Your task to perform on an android device: Do I have any events today? Image 0: 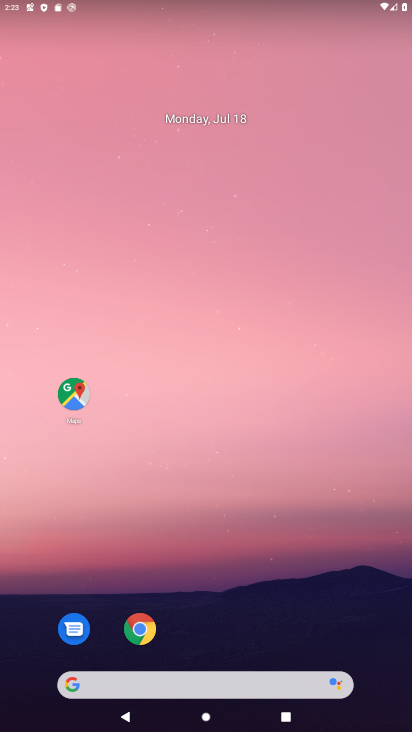
Step 0: drag from (223, 598) to (253, 306)
Your task to perform on an android device: Do I have any events today? Image 1: 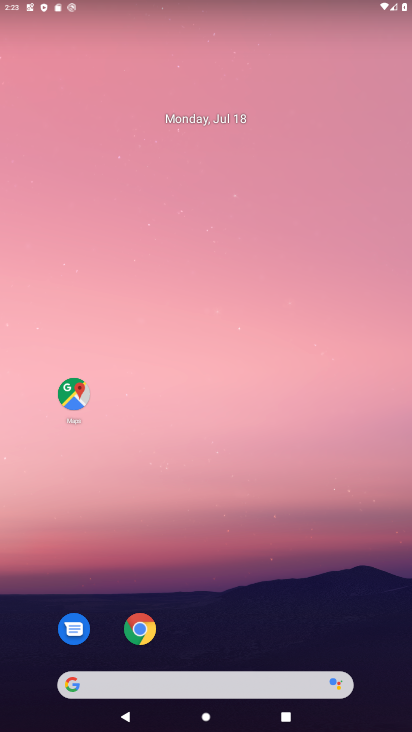
Step 1: drag from (227, 639) to (227, 248)
Your task to perform on an android device: Do I have any events today? Image 2: 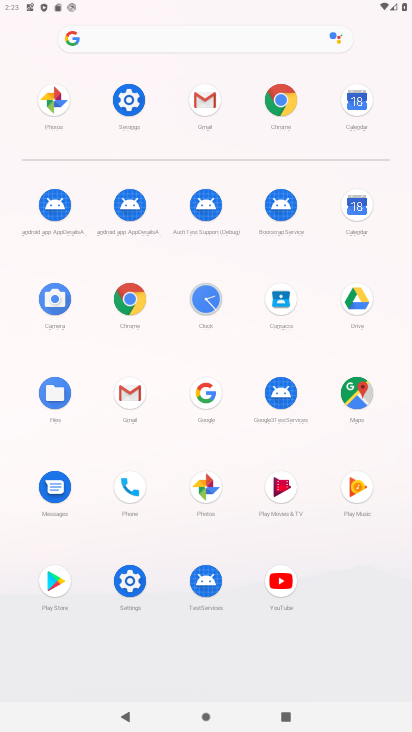
Step 2: click (340, 214)
Your task to perform on an android device: Do I have any events today? Image 3: 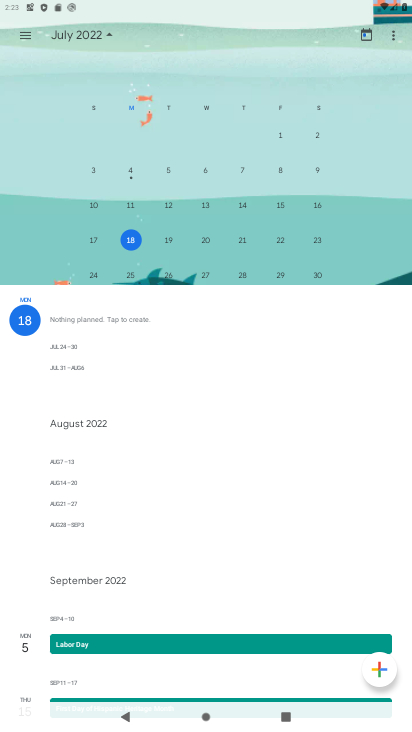
Step 3: task complete